Your task to perform on an android device: change keyboard looks Image 0: 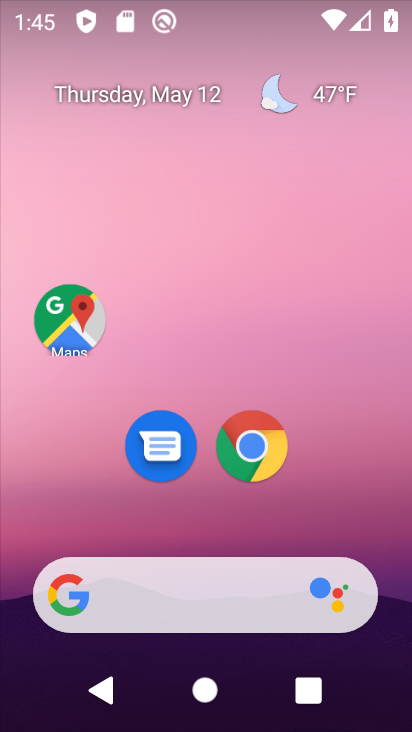
Step 0: drag from (199, 530) to (168, 15)
Your task to perform on an android device: change keyboard looks Image 1: 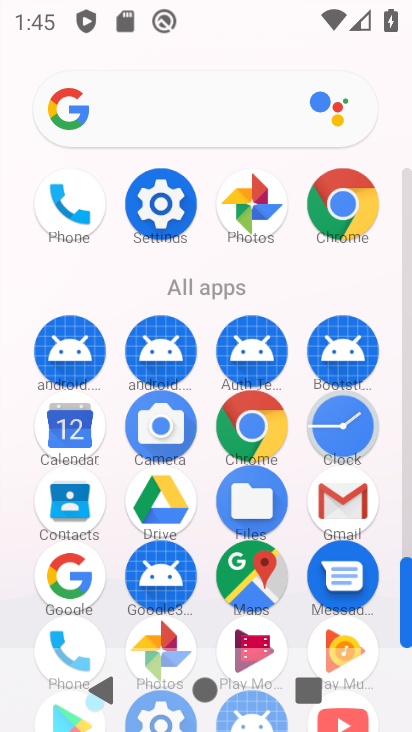
Step 1: click (161, 190)
Your task to perform on an android device: change keyboard looks Image 2: 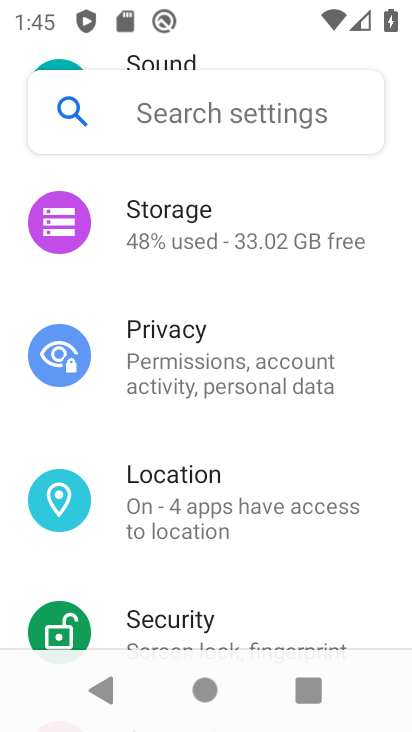
Step 2: drag from (211, 548) to (192, 136)
Your task to perform on an android device: change keyboard looks Image 3: 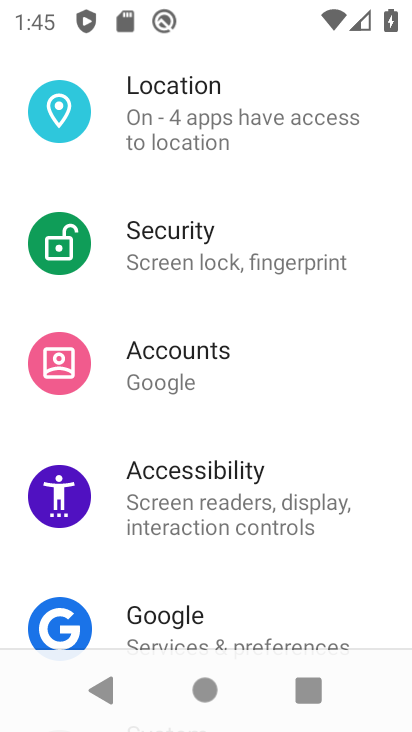
Step 3: drag from (217, 542) to (217, 111)
Your task to perform on an android device: change keyboard looks Image 4: 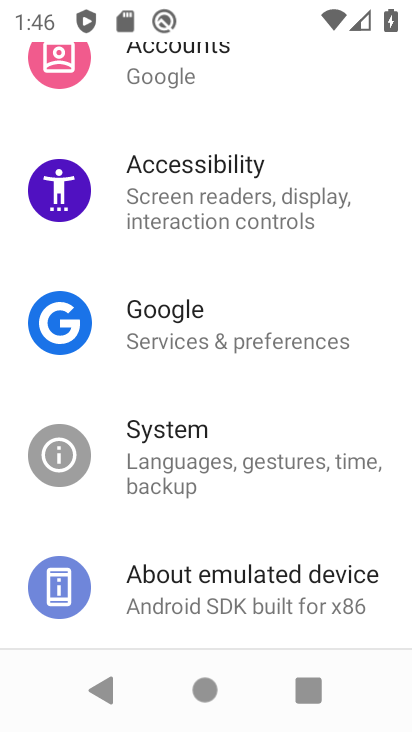
Step 4: drag from (213, 277) to (211, 634)
Your task to perform on an android device: change keyboard looks Image 5: 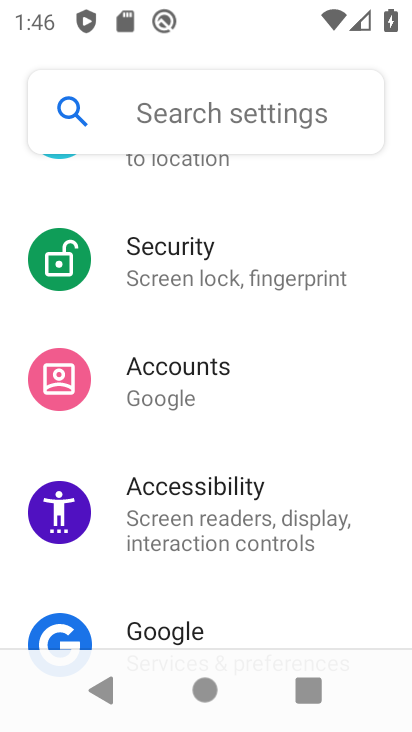
Step 5: drag from (219, 231) to (206, 561)
Your task to perform on an android device: change keyboard looks Image 6: 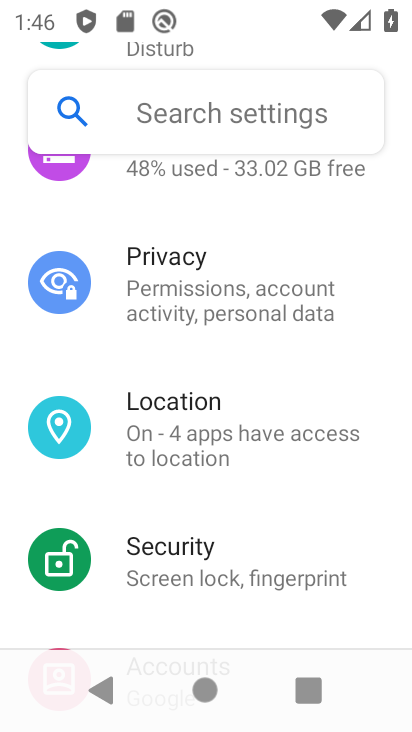
Step 6: drag from (243, 516) to (238, 71)
Your task to perform on an android device: change keyboard looks Image 7: 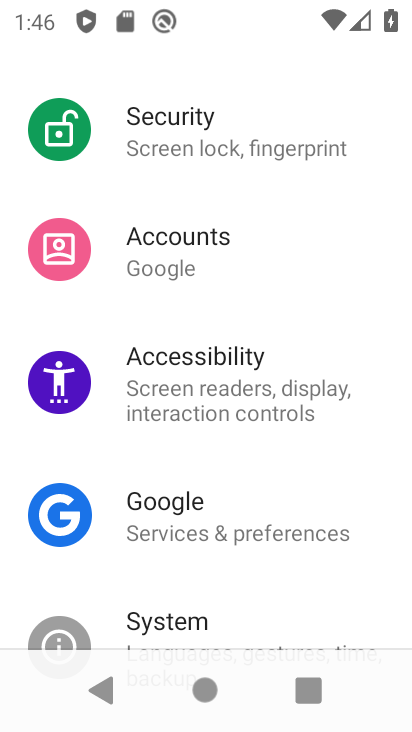
Step 7: drag from (252, 484) to (252, 135)
Your task to perform on an android device: change keyboard looks Image 8: 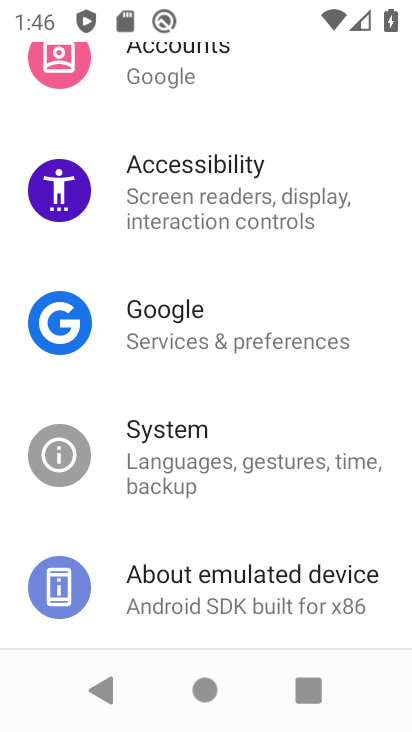
Step 8: click (208, 433)
Your task to perform on an android device: change keyboard looks Image 9: 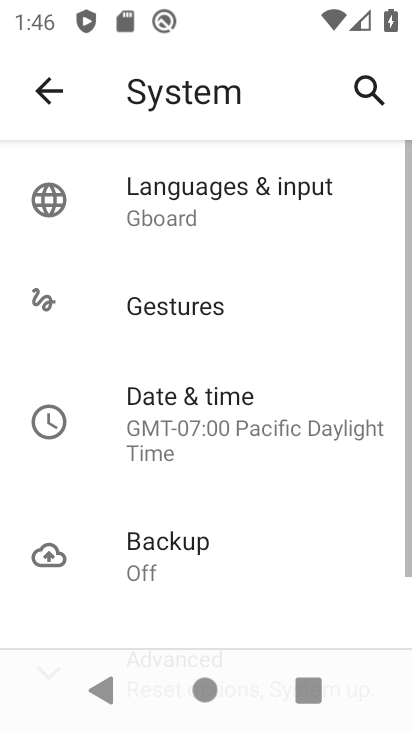
Step 9: click (193, 213)
Your task to perform on an android device: change keyboard looks Image 10: 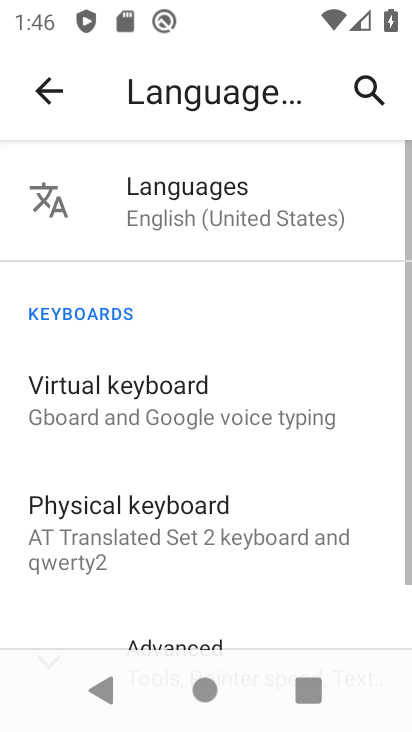
Step 10: click (140, 385)
Your task to perform on an android device: change keyboard looks Image 11: 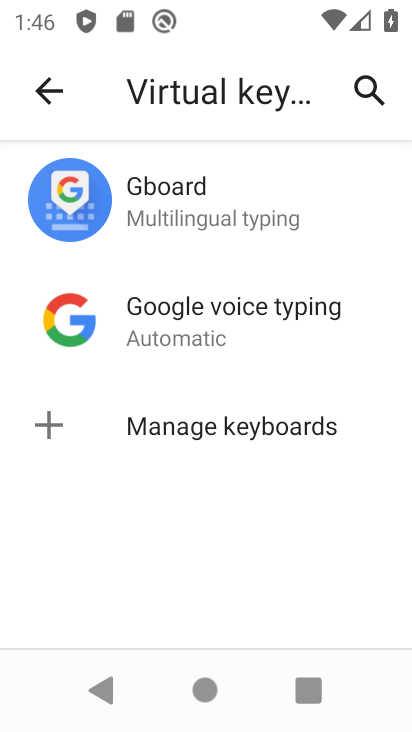
Step 11: click (176, 231)
Your task to perform on an android device: change keyboard looks Image 12: 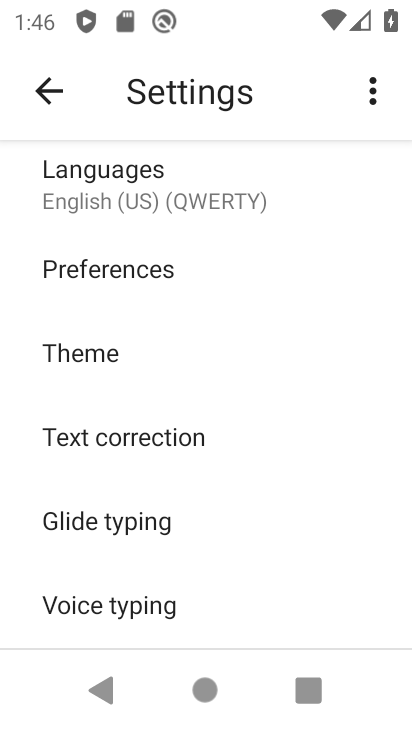
Step 12: click (112, 355)
Your task to perform on an android device: change keyboard looks Image 13: 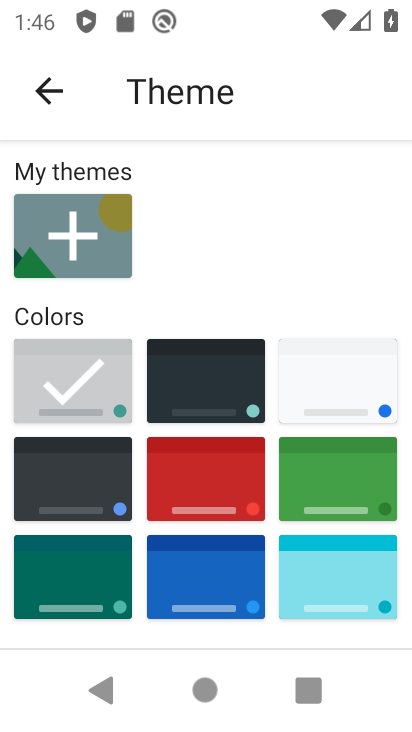
Step 13: click (204, 502)
Your task to perform on an android device: change keyboard looks Image 14: 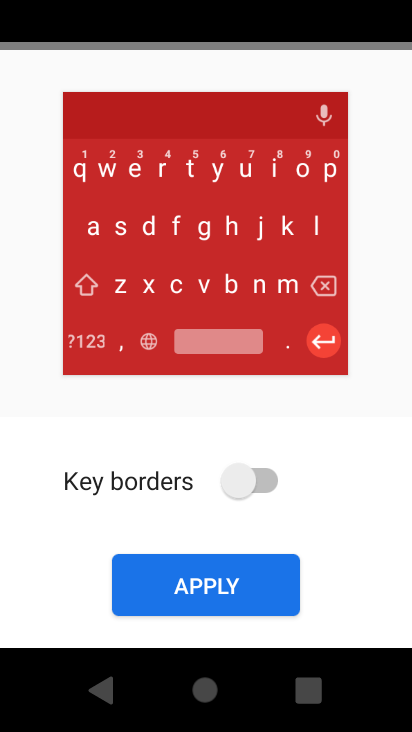
Step 14: click (198, 598)
Your task to perform on an android device: change keyboard looks Image 15: 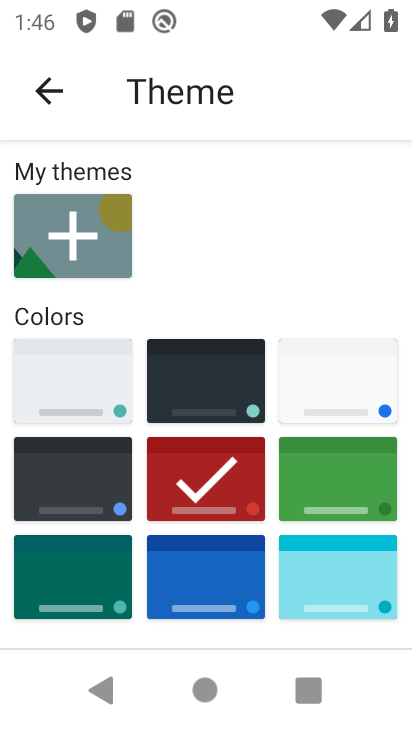
Step 15: task complete